Your task to perform on an android device: Turn on the flashlight Image 0: 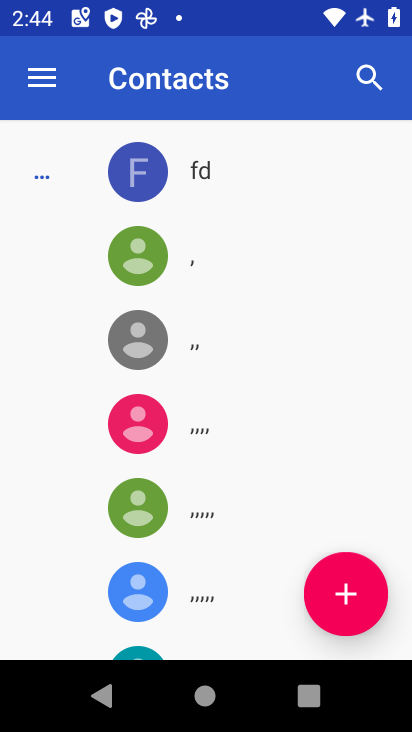
Step 0: task impossible